Your task to perform on an android device: Search for the best selling coffee table on Crate & Barrel Image 0: 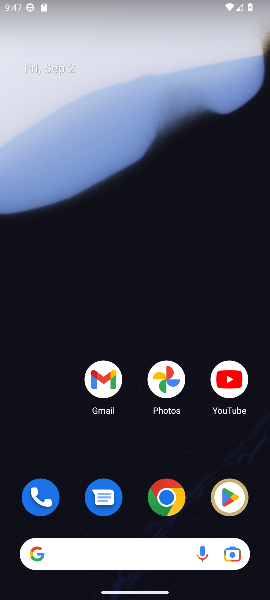
Step 0: drag from (143, 436) to (121, 23)
Your task to perform on an android device: Search for the best selling coffee table on Crate & Barrel Image 1: 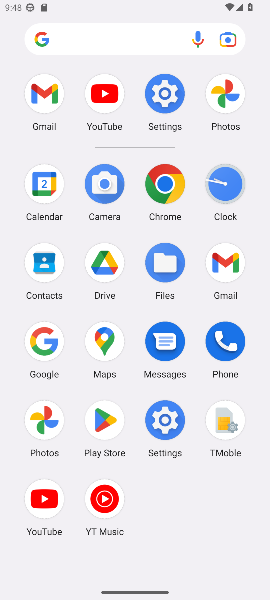
Step 1: click (51, 339)
Your task to perform on an android device: Search for the best selling coffee table on Crate & Barrel Image 2: 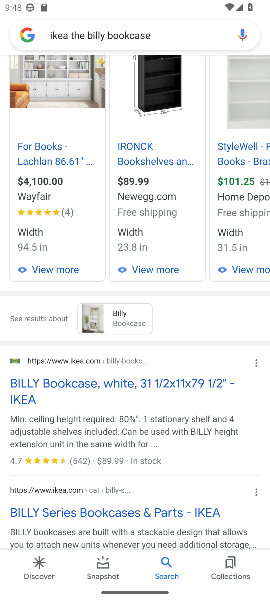
Step 2: click (154, 37)
Your task to perform on an android device: Search for the best selling coffee table on Crate & Barrel Image 3: 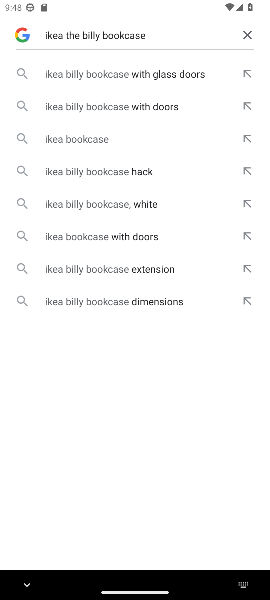
Step 3: click (245, 38)
Your task to perform on an android device: Search for the best selling coffee table on Crate & Barrel Image 4: 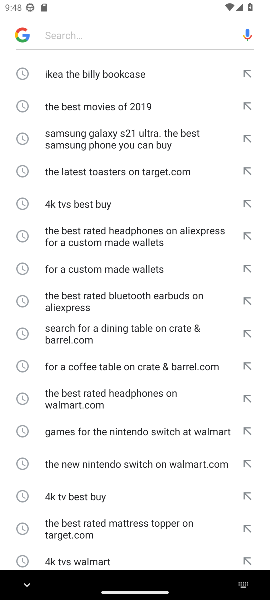
Step 4: type "the ikea billy bookcase"
Your task to perform on an android device: Search for the best selling coffee table on Crate & Barrel Image 5: 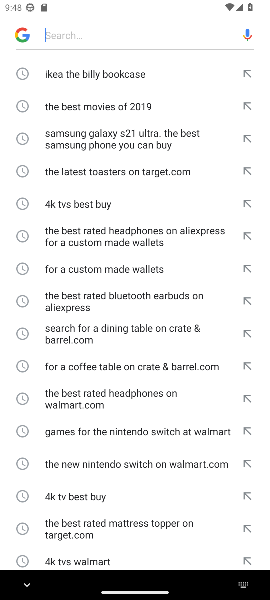
Step 5: click (126, 79)
Your task to perform on an android device: Search for the best selling coffee table on Crate & Barrel Image 6: 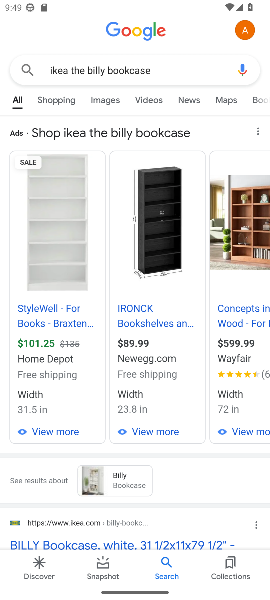
Step 6: task complete